Your task to perform on an android device: Open calendar and show me the third week of next month Image 0: 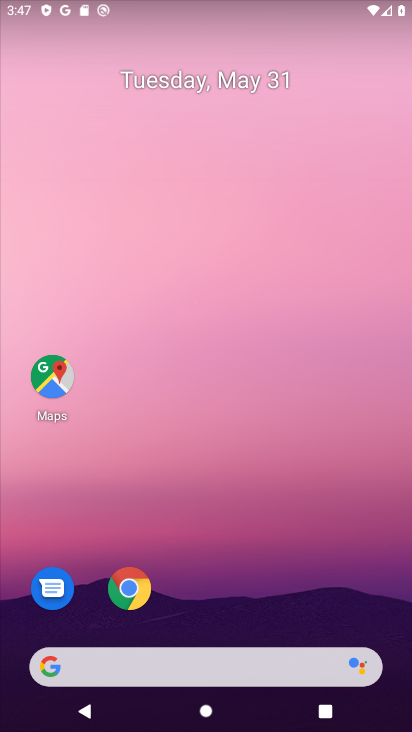
Step 0: click (218, 80)
Your task to perform on an android device: Open calendar and show me the third week of next month Image 1: 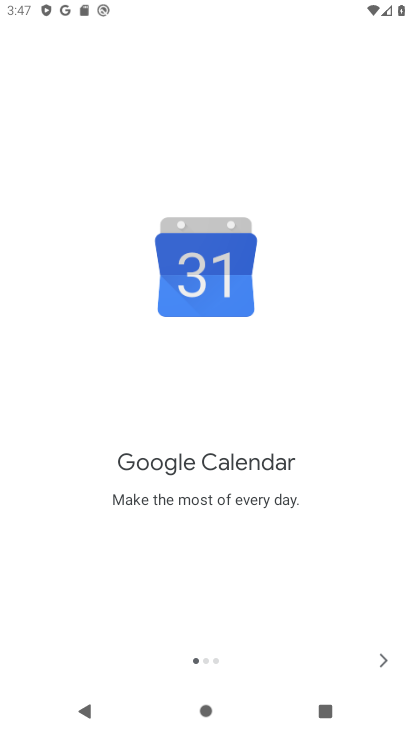
Step 1: click (381, 660)
Your task to perform on an android device: Open calendar and show me the third week of next month Image 2: 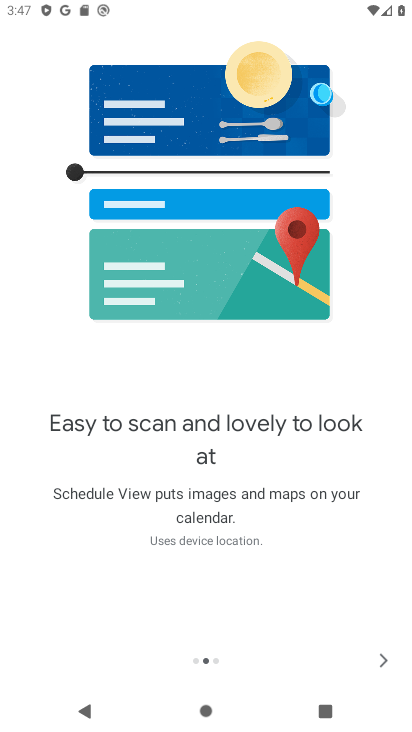
Step 2: click (381, 660)
Your task to perform on an android device: Open calendar and show me the third week of next month Image 3: 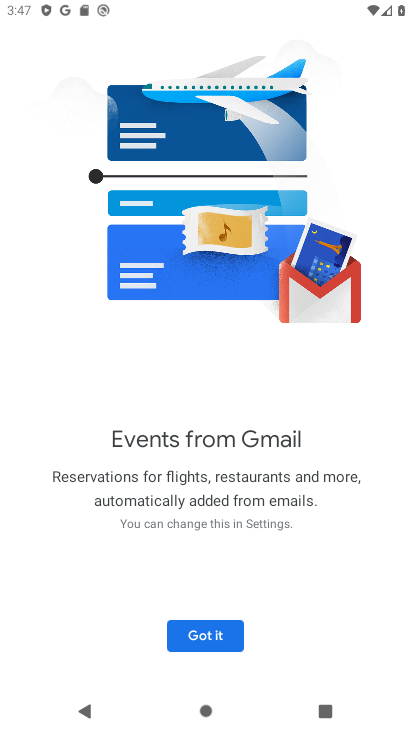
Step 3: click (228, 625)
Your task to perform on an android device: Open calendar and show me the third week of next month Image 4: 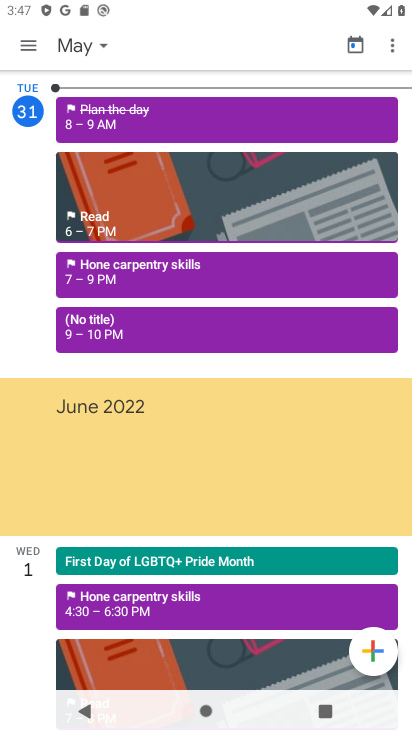
Step 4: click (96, 53)
Your task to perform on an android device: Open calendar and show me the third week of next month Image 5: 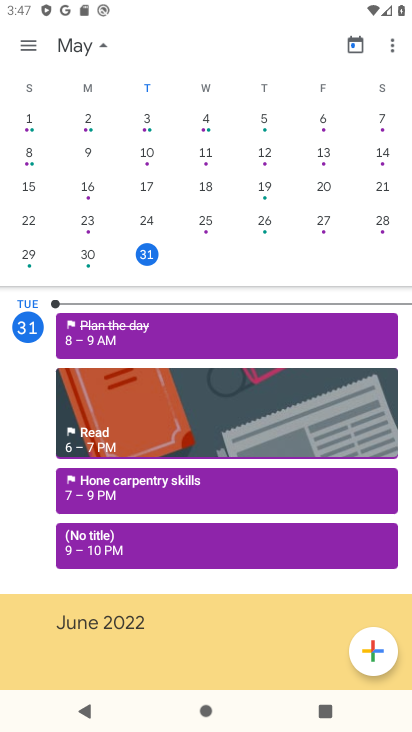
Step 5: drag from (332, 247) to (28, 264)
Your task to perform on an android device: Open calendar and show me the third week of next month Image 6: 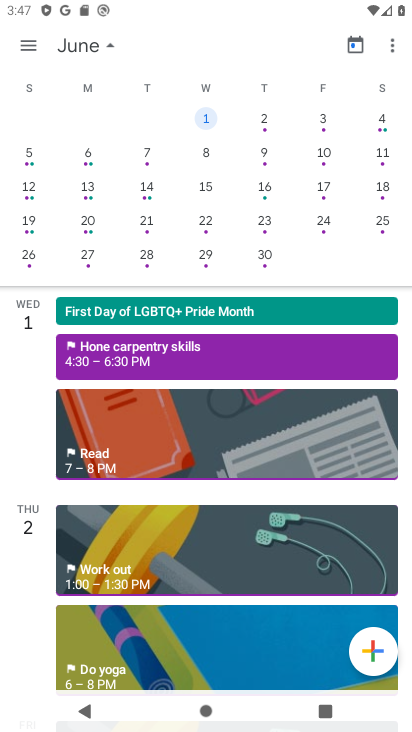
Step 6: click (149, 184)
Your task to perform on an android device: Open calendar and show me the third week of next month Image 7: 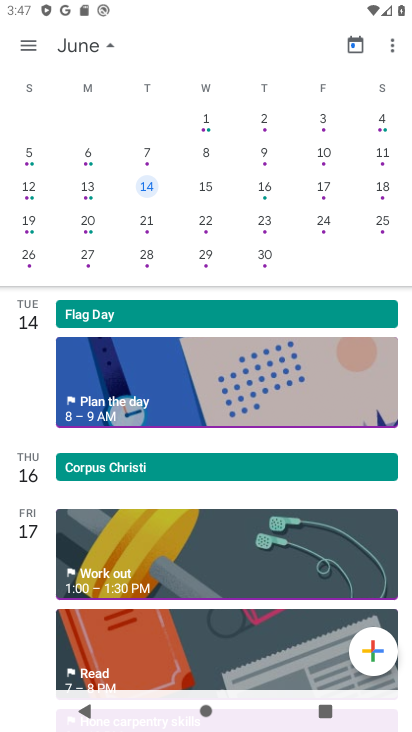
Step 7: task complete